Your task to perform on an android device: Add alienware aurora to the cart on walmart Image 0: 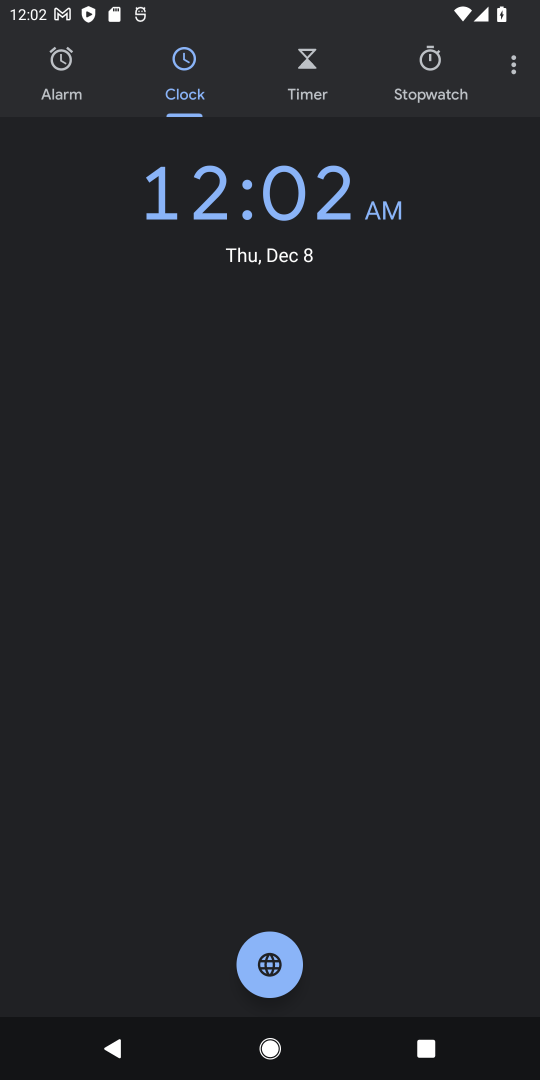
Step 0: press home button
Your task to perform on an android device: Add alienware aurora to the cart on walmart Image 1: 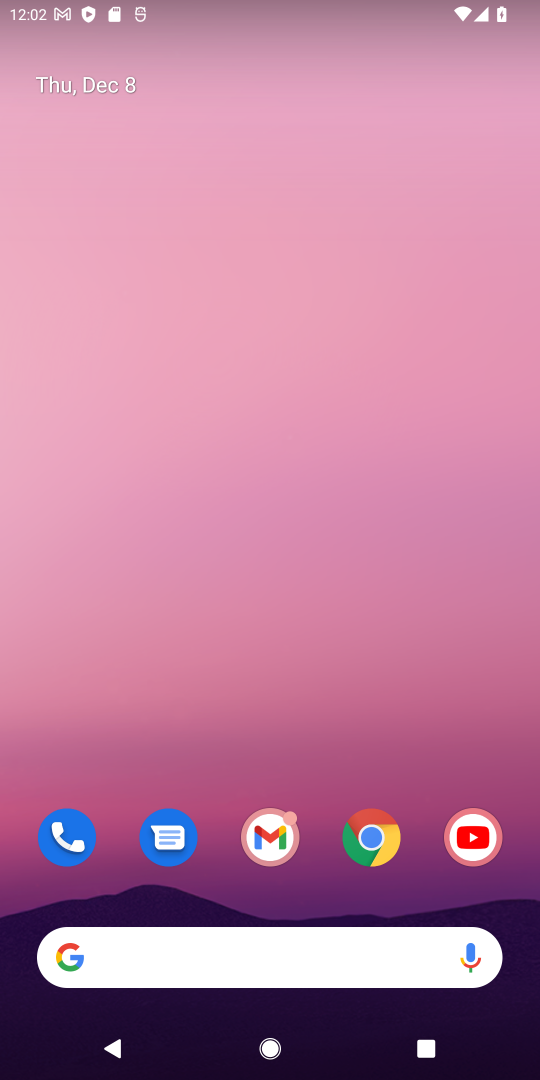
Step 1: click (376, 859)
Your task to perform on an android device: Add alienware aurora to the cart on walmart Image 2: 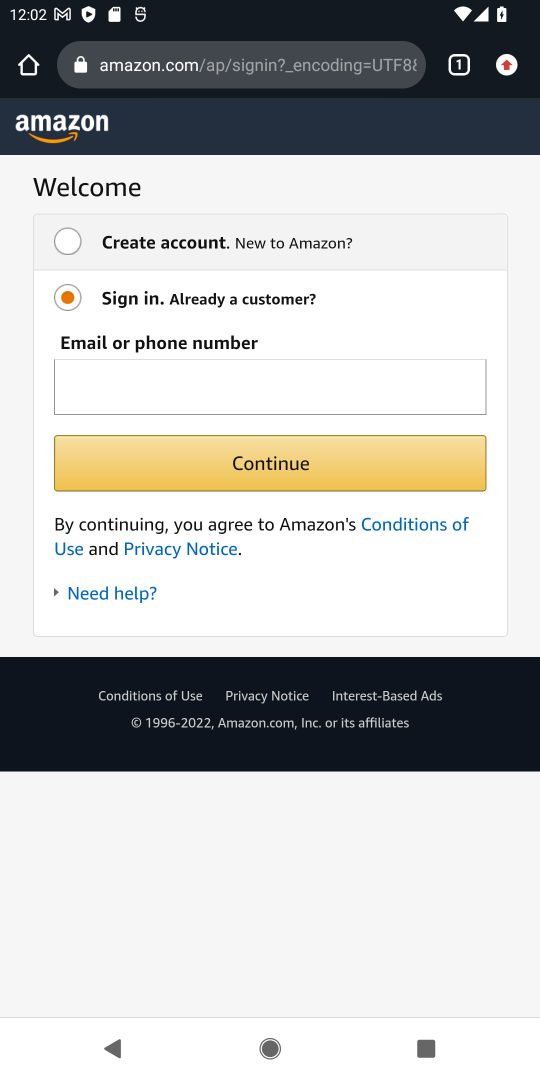
Step 2: click (143, 78)
Your task to perform on an android device: Add alienware aurora to the cart on walmart Image 3: 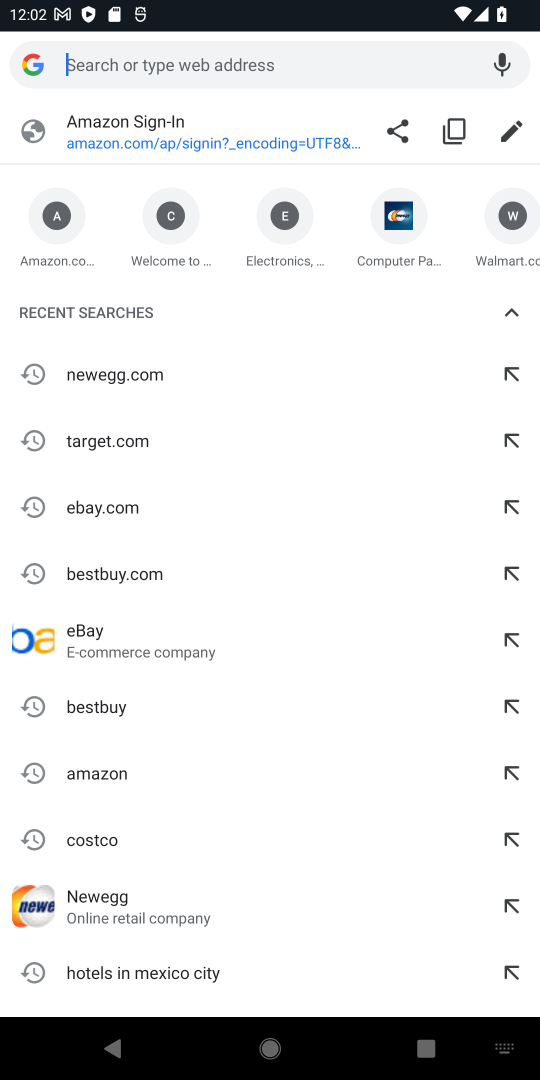
Step 3: type "walmart"
Your task to perform on an android device: Add alienware aurora to the cart on walmart Image 4: 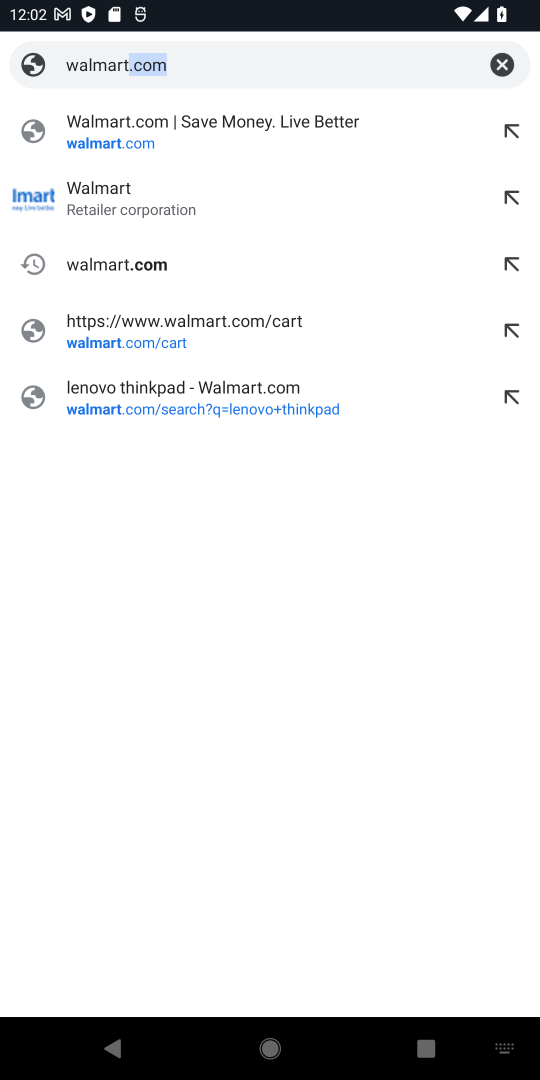
Step 4: press enter
Your task to perform on an android device: Add alienware aurora to the cart on walmart Image 5: 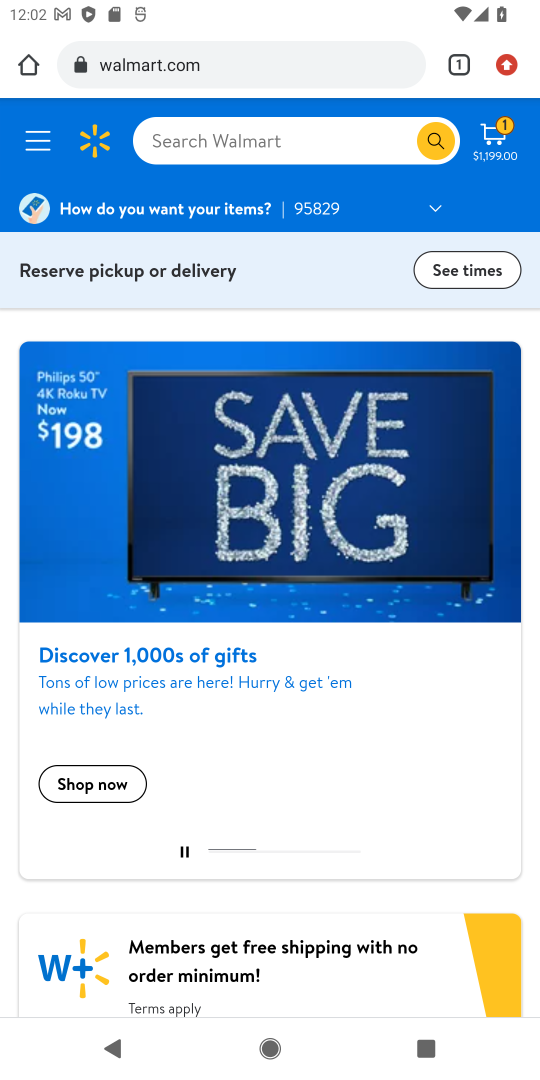
Step 5: click (228, 111)
Your task to perform on an android device: Add alienware aurora to the cart on walmart Image 6: 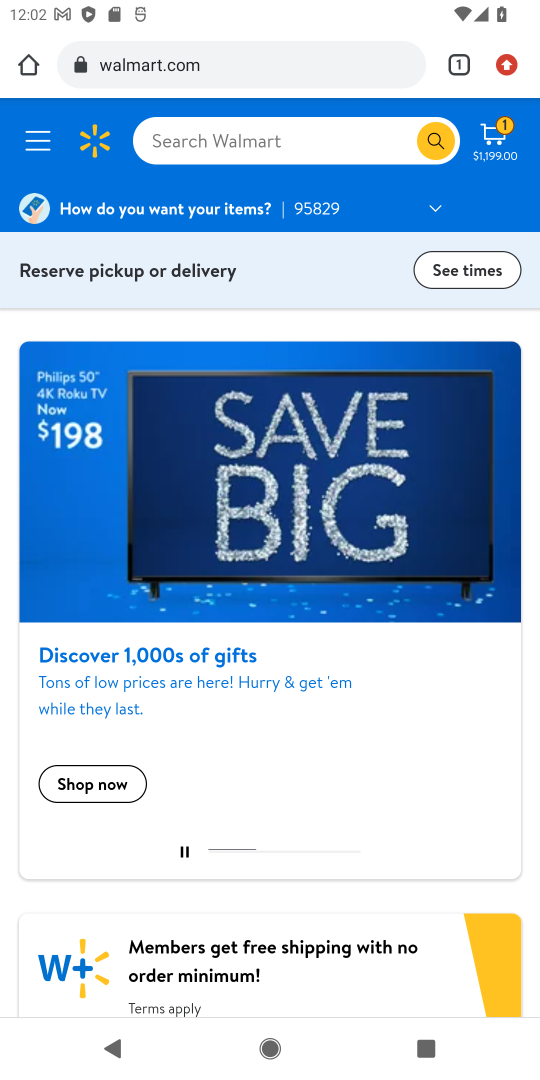
Step 6: click (242, 141)
Your task to perform on an android device: Add alienware aurora to the cart on walmart Image 7: 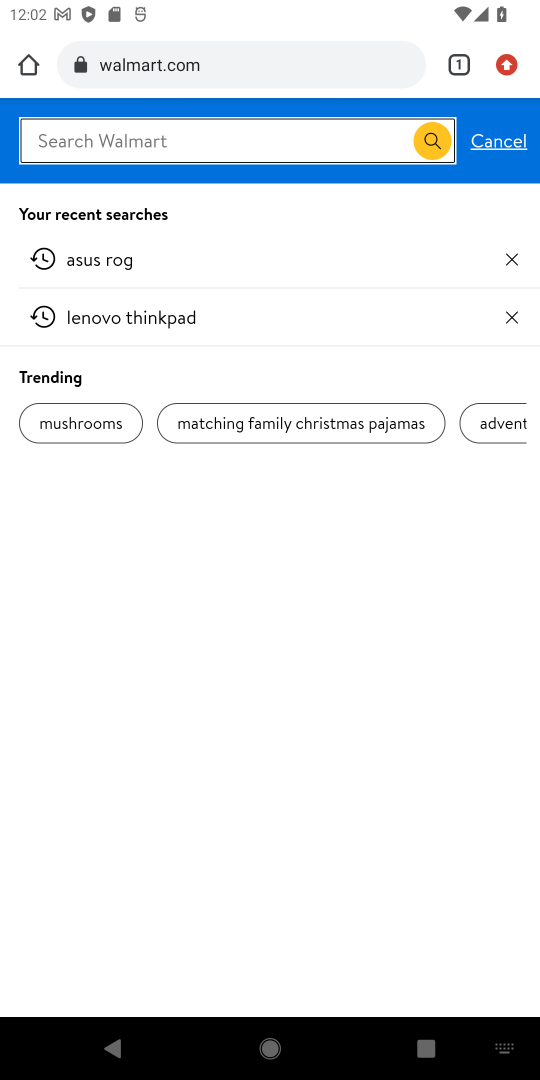
Step 7: type "alienware aurora"
Your task to perform on an android device: Add alienware aurora to the cart on walmart Image 8: 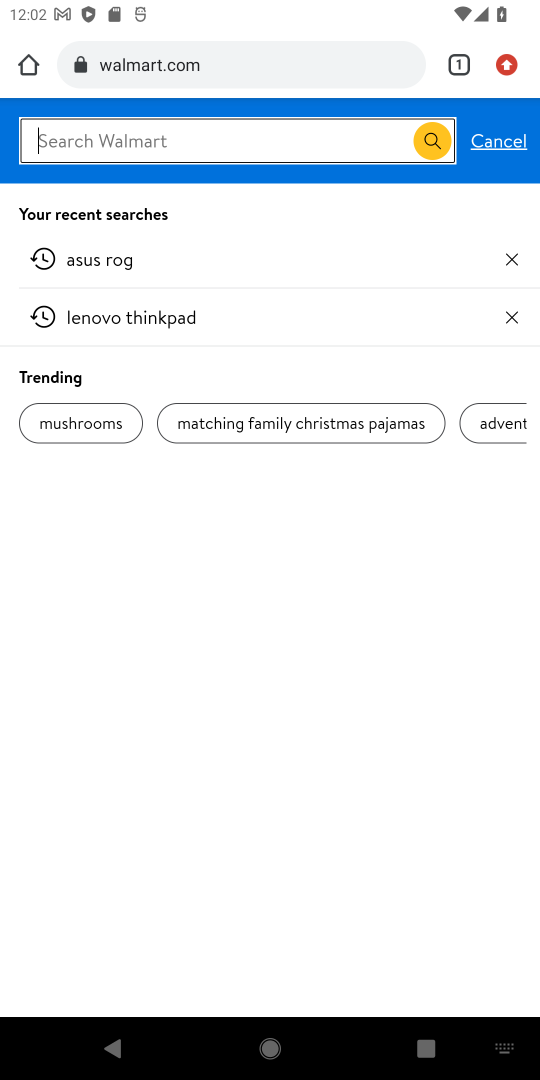
Step 8: press enter
Your task to perform on an android device: Add alienware aurora to the cart on walmart Image 9: 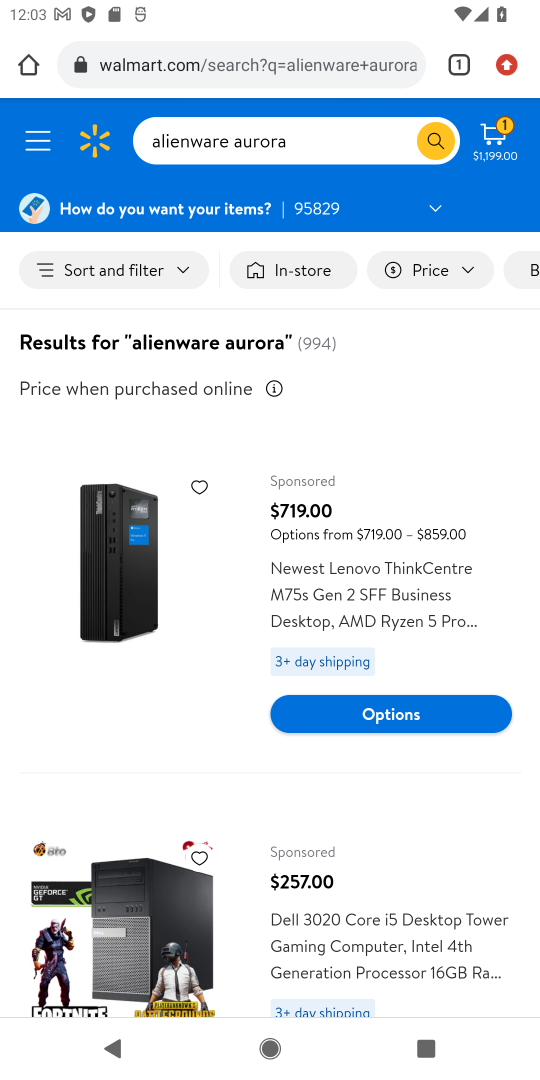
Step 9: drag from (452, 889) to (449, 811)
Your task to perform on an android device: Add alienware aurora to the cart on walmart Image 10: 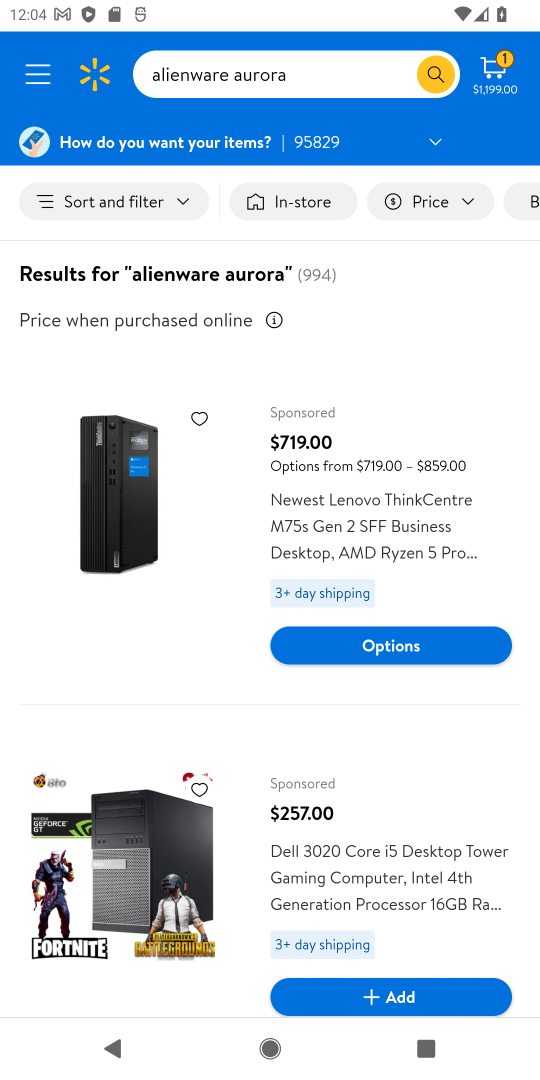
Step 10: drag from (425, 873) to (394, 559)
Your task to perform on an android device: Add alienware aurora to the cart on walmart Image 11: 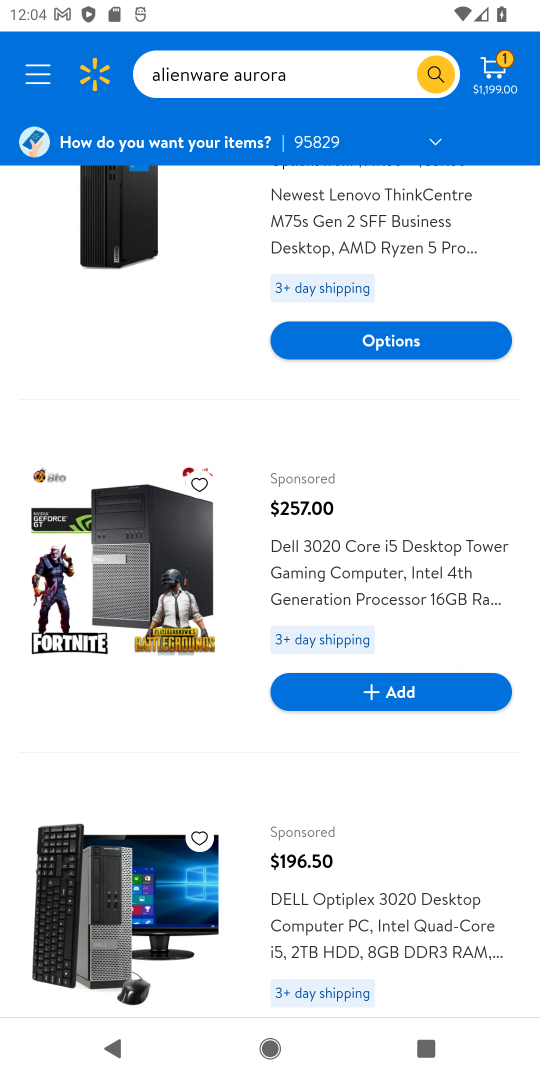
Step 11: drag from (334, 887) to (321, 373)
Your task to perform on an android device: Add alienware aurora to the cart on walmart Image 12: 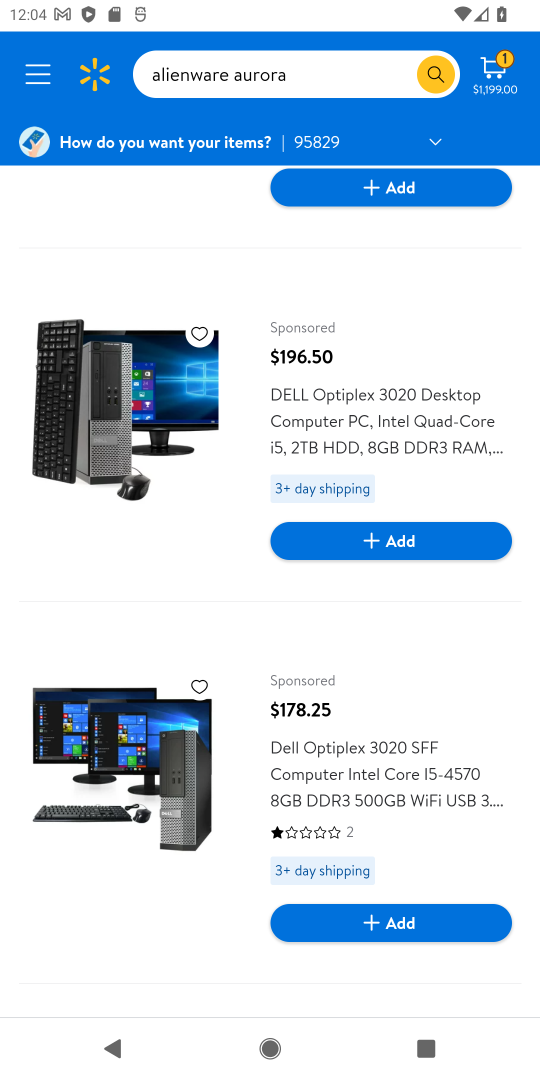
Step 12: drag from (375, 790) to (325, 315)
Your task to perform on an android device: Add alienware aurora to the cart on walmart Image 13: 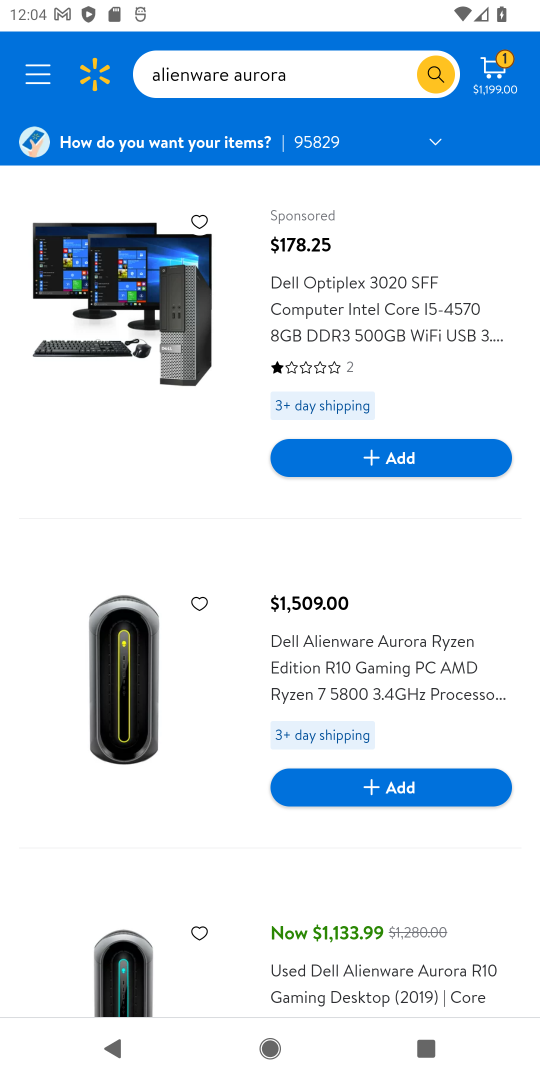
Step 13: click (456, 930)
Your task to perform on an android device: Add alienware aurora to the cart on walmart Image 14: 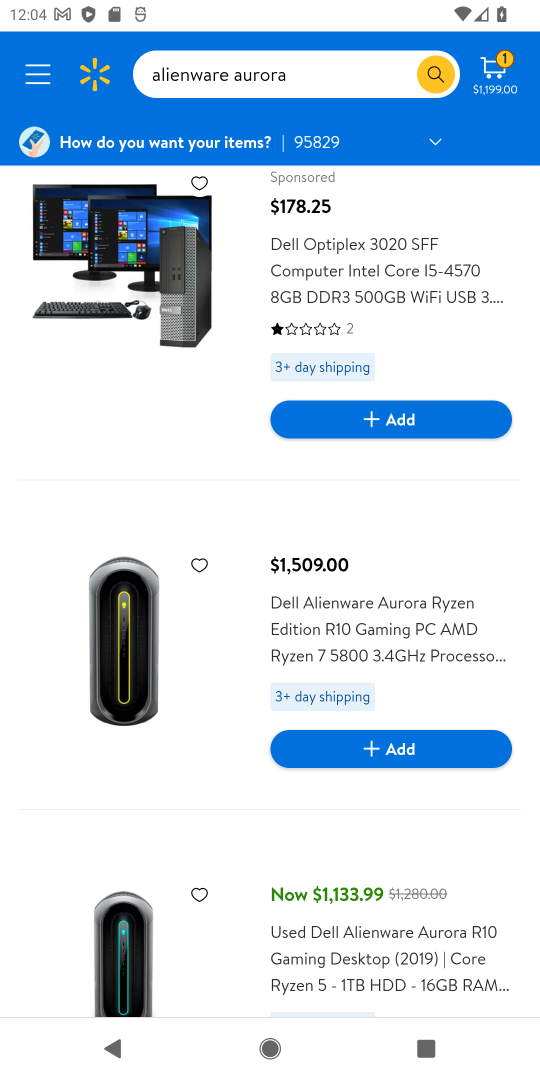
Step 14: click (403, 752)
Your task to perform on an android device: Add alienware aurora to the cart on walmart Image 15: 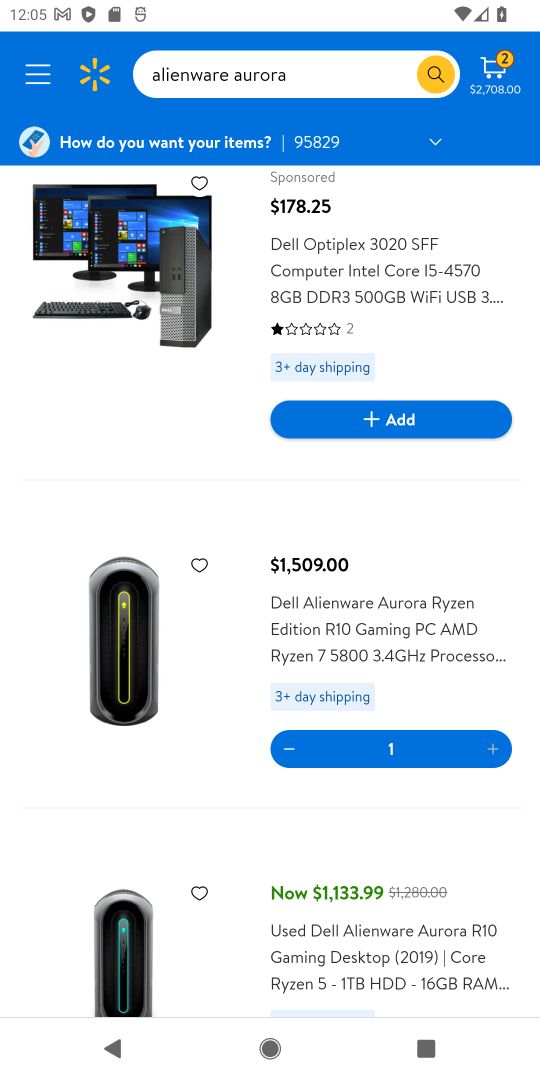
Step 15: click (492, 71)
Your task to perform on an android device: Add alienware aurora to the cart on walmart Image 16: 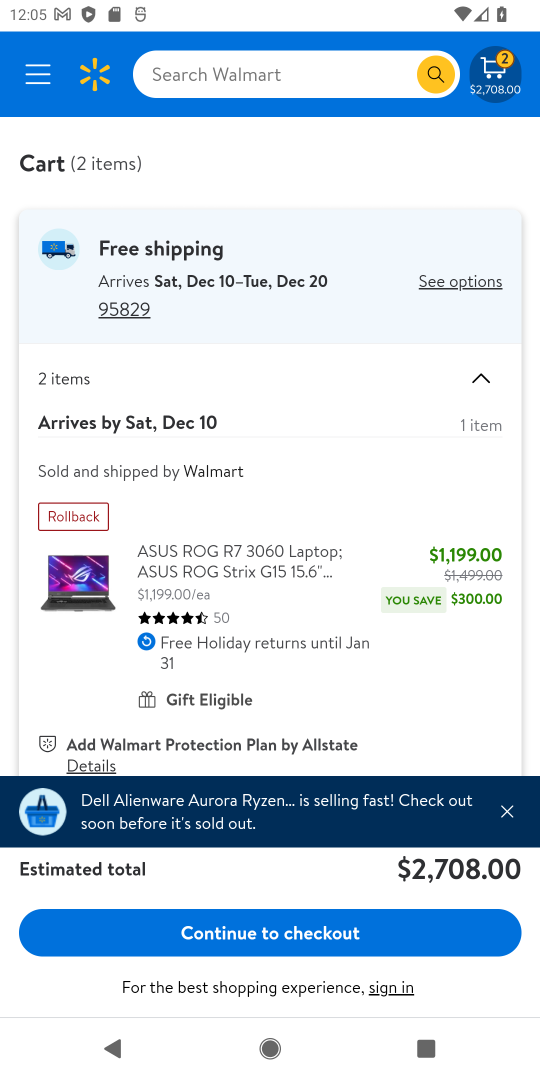
Step 16: task complete